Your task to perform on an android device: Find coffee shops on Maps Image 0: 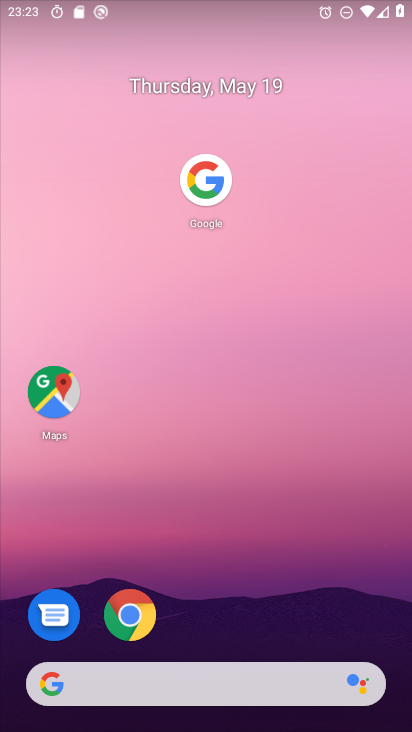
Step 0: drag from (191, 579) to (222, 70)
Your task to perform on an android device: Find coffee shops on Maps Image 1: 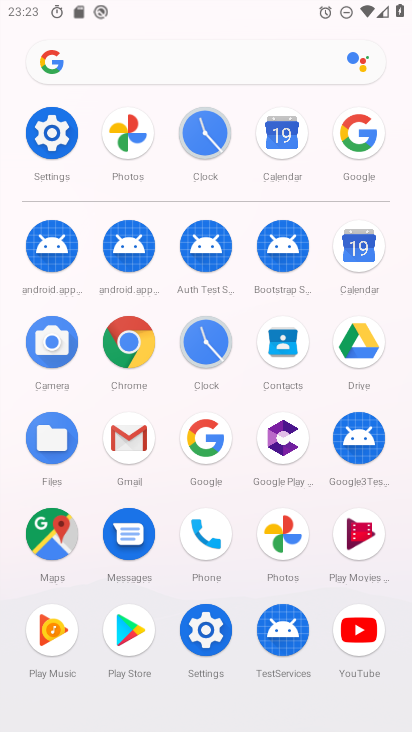
Step 1: click (53, 532)
Your task to perform on an android device: Find coffee shops on Maps Image 2: 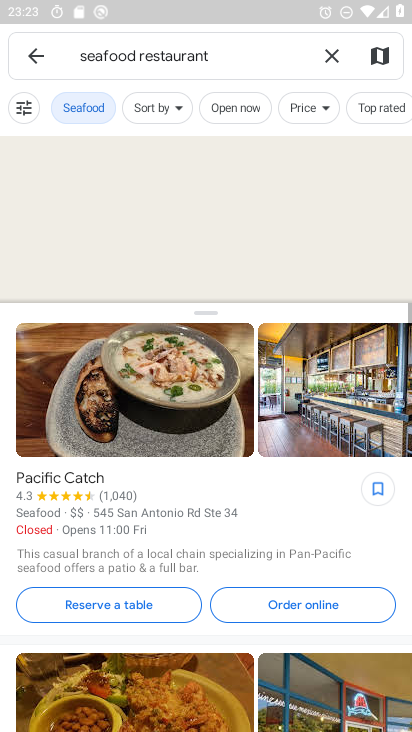
Step 2: click (273, 62)
Your task to perform on an android device: Find coffee shops on Maps Image 3: 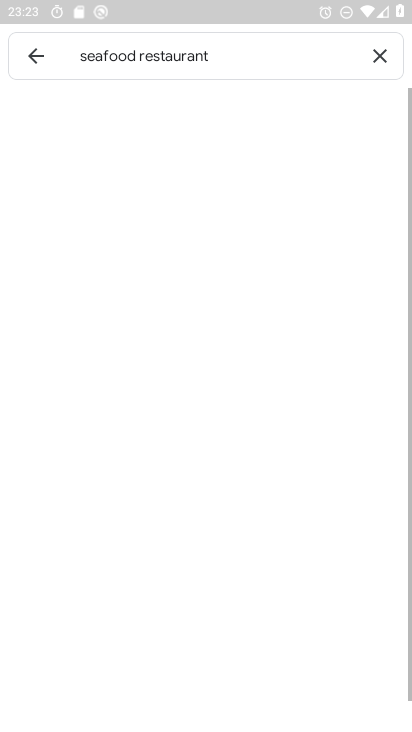
Step 3: click (375, 53)
Your task to perform on an android device: Find coffee shops on Maps Image 4: 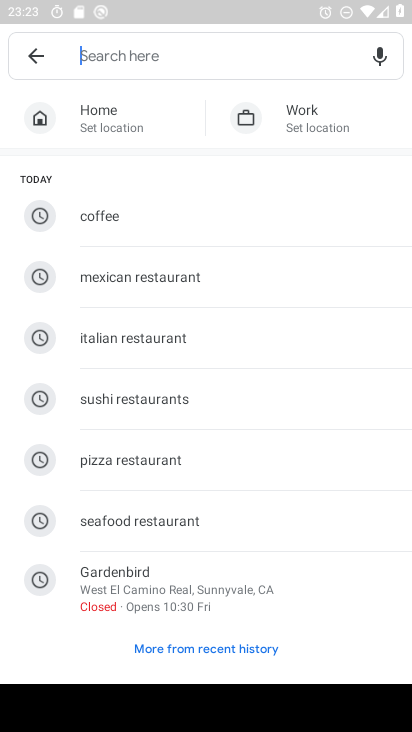
Step 4: click (158, 216)
Your task to perform on an android device: Find coffee shops on Maps Image 5: 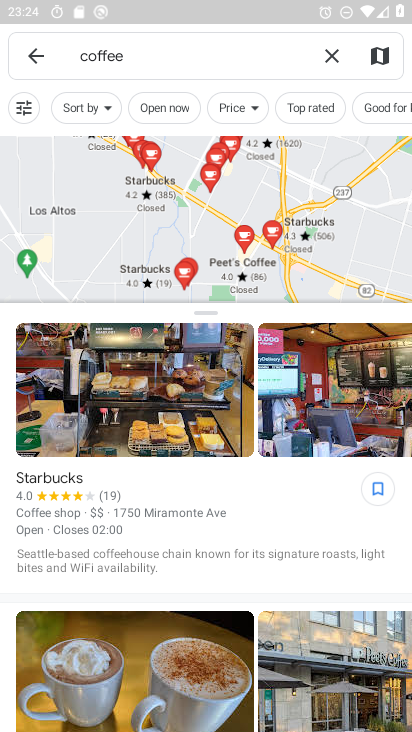
Step 5: task complete